Your task to perform on an android device: Go to calendar. Show me events next week Image 0: 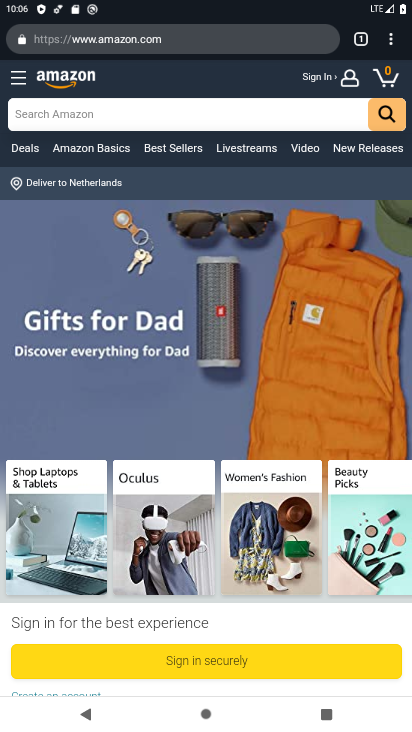
Step 0: press home button
Your task to perform on an android device: Go to calendar. Show me events next week Image 1: 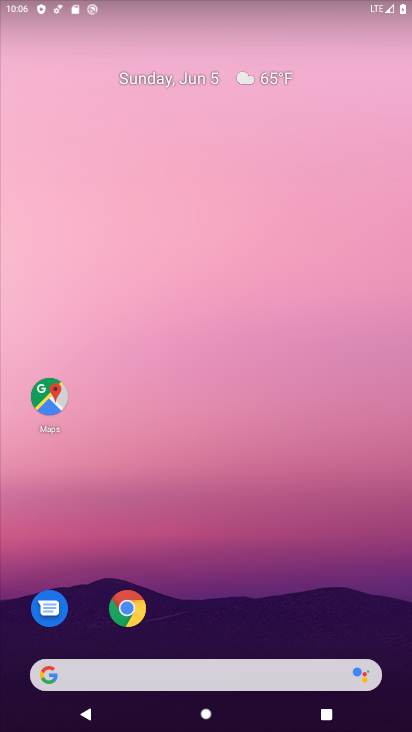
Step 1: drag from (187, 665) to (177, 218)
Your task to perform on an android device: Go to calendar. Show me events next week Image 2: 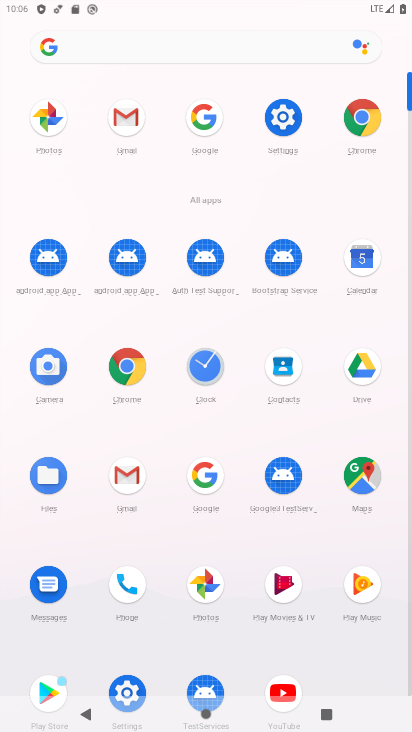
Step 2: click (362, 261)
Your task to perform on an android device: Go to calendar. Show me events next week Image 3: 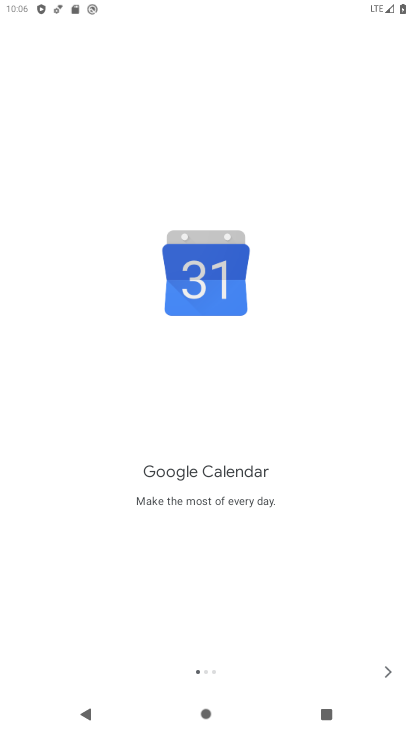
Step 3: click (382, 665)
Your task to perform on an android device: Go to calendar. Show me events next week Image 4: 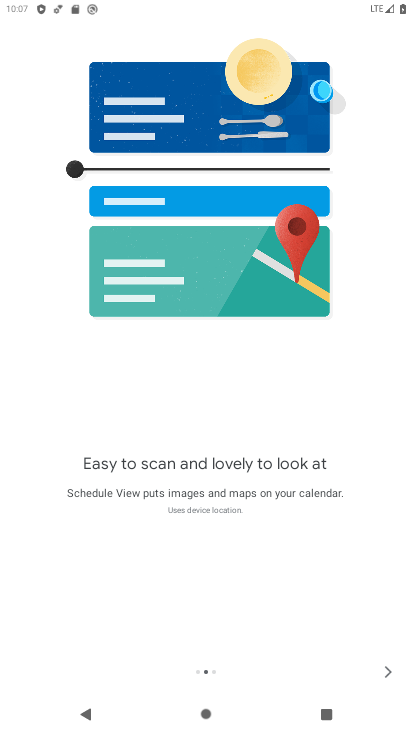
Step 4: click (382, 665)
Your task to perform on an android device: Go to calendar. Show me events next week Image 5: 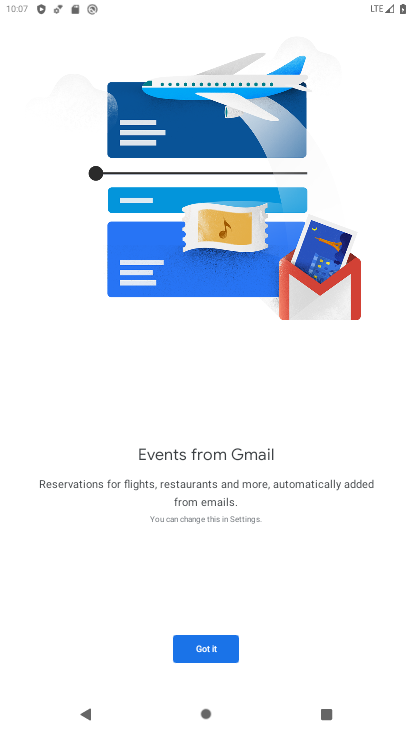
Step 5: click (194, 646)
Your task to perform on an android device: Go to calendar. Show me events next week Image 6: 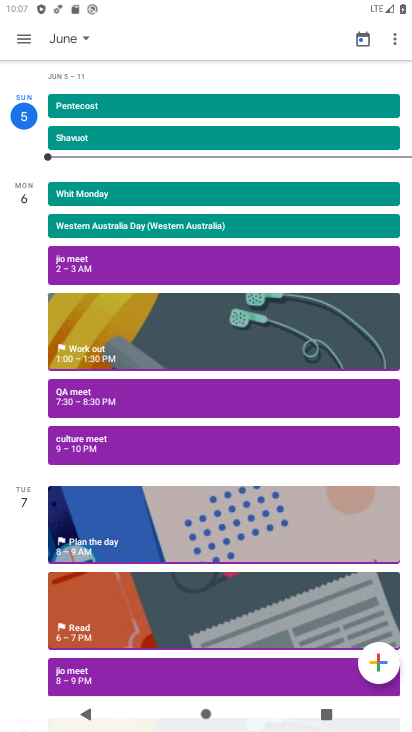
Step 6: click (30, 48)
Your task to perform on an android device: Go to calendar. Show me events next week Image 7: 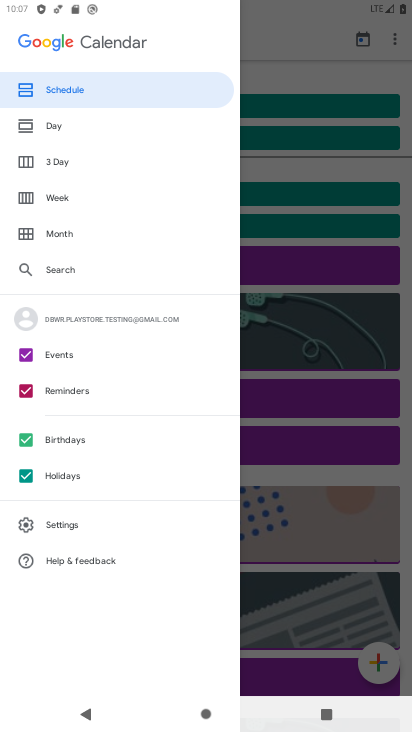
Step 7: click (48, 191)
Your task to perform on an android device: Go to calendar. Show me events next week Image 8: 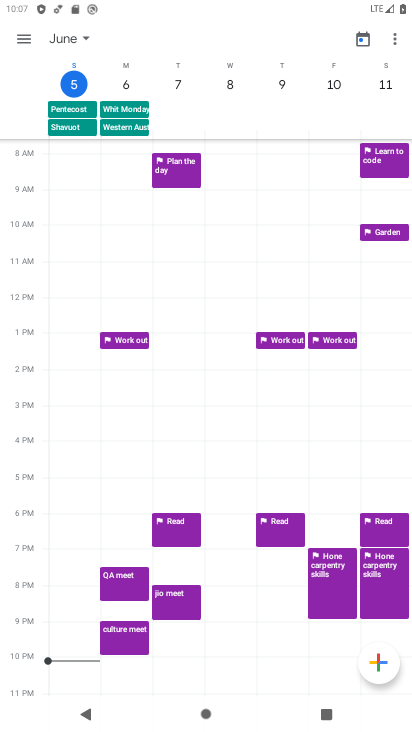
Step 8: task complete